Your task to perform on an android device: Open calendar and show me the second week of next month Image 0: 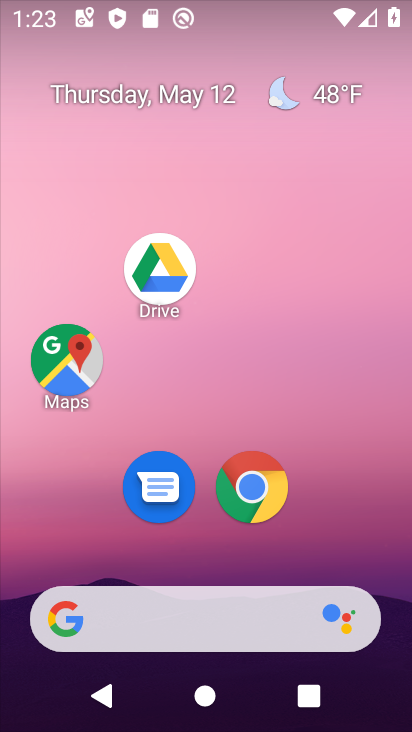
Step 0: drag from (180, 555) to (160, 32)
Your task to perform on an android device: Open calendar and show me the second week of next month Image 1: 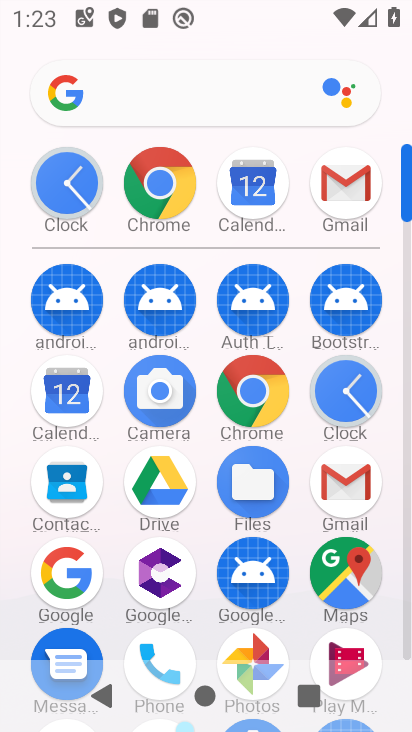
Step 1: click (76, 421)
Your task to perform on an android device: Open calendar and show me the second week of next month Image 2: 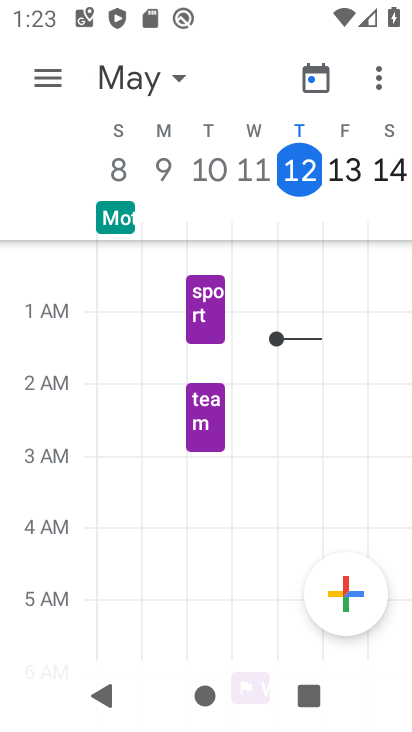
Step 2: task complete